Your task to perform on an android device: turn on priority inbox in the gmail app Image 0: 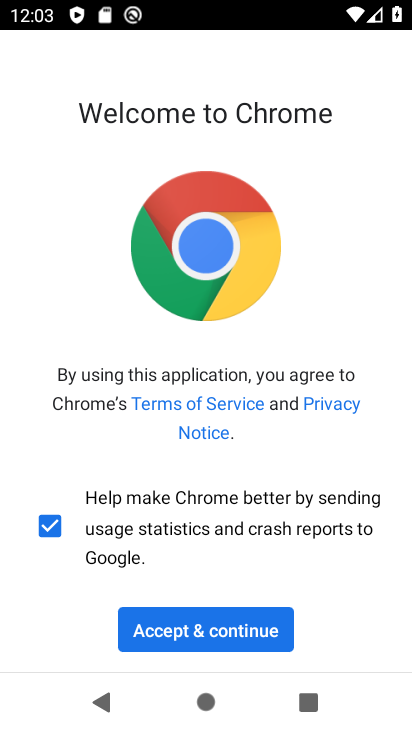
Step 0: press home button
Your task to perform on an android device: turn on priority inbox in the gmail app Image 1: 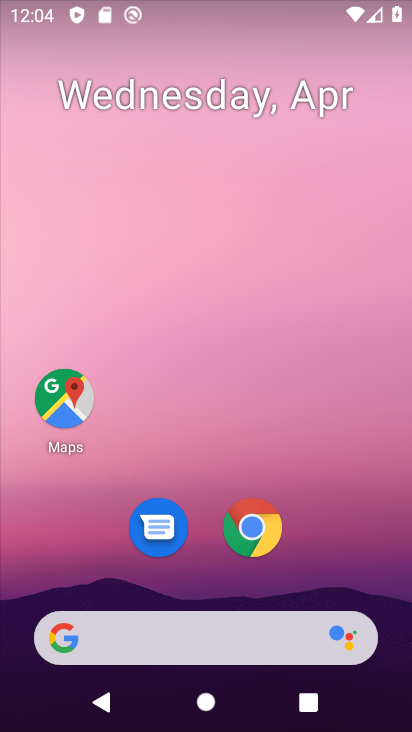
Step 1: drag from (367, 348) to (341, 22)
Your task to perform on an android device: turn on priority inbox in the gmail app Image 2: 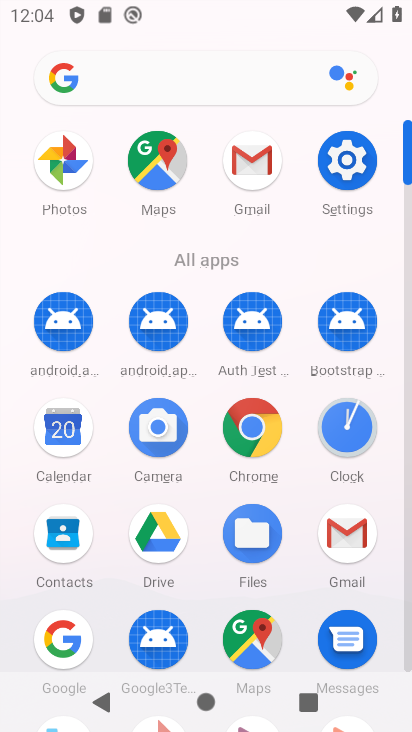
Step 2: click (249, 168)
Your task to perform on an android device: turn on priority inbox in the gmail app Image 3: 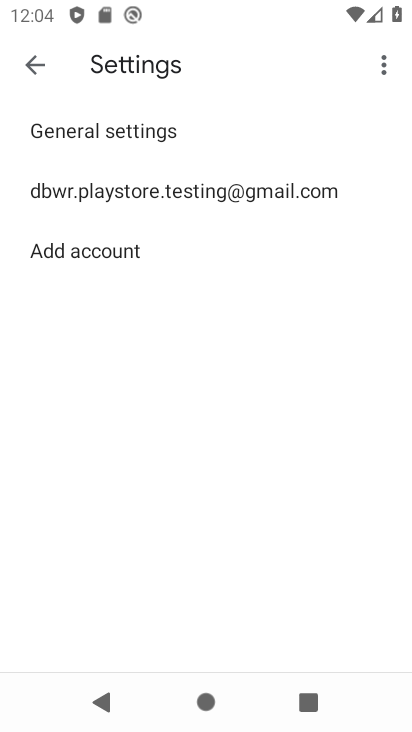
Step 3: click (144, 194)
Your task to perform on an android device: turn on priority inbox in the gmail app Image 4: 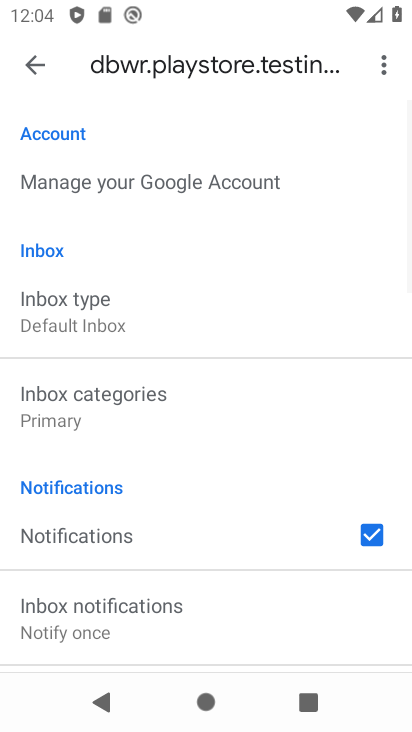
Step 4: click (87, 319)
Your task to perform on an android device: turn on priority inbox in the gmail app Image 5: 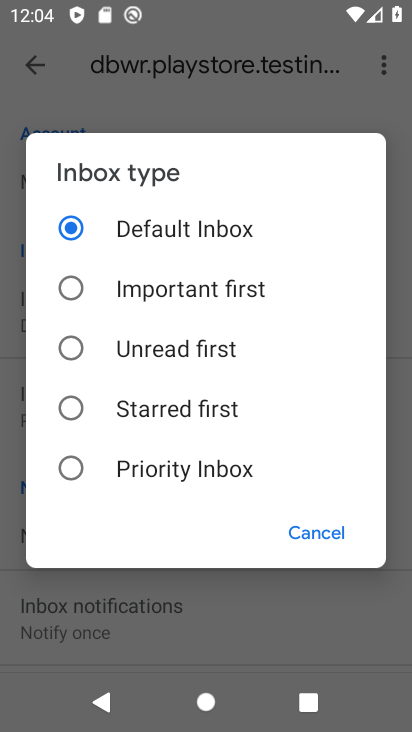
Step 5: click (63, 462)
Your task to perform on an android device: turn on priority inbox in the gmail app Image 6: 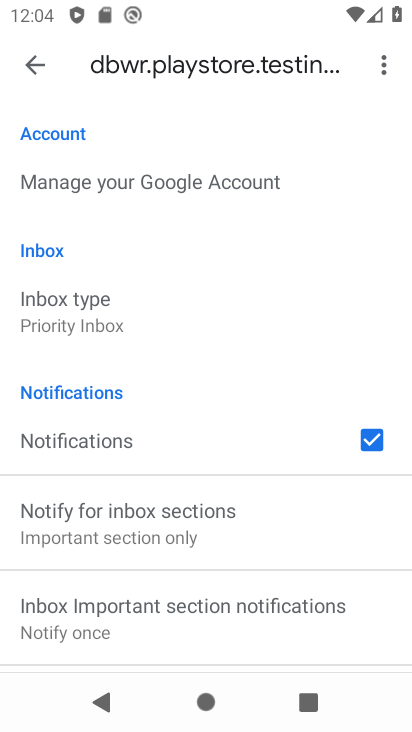
Step 6: task complete